Your task to perform on an android device: toggle location history Image 0: 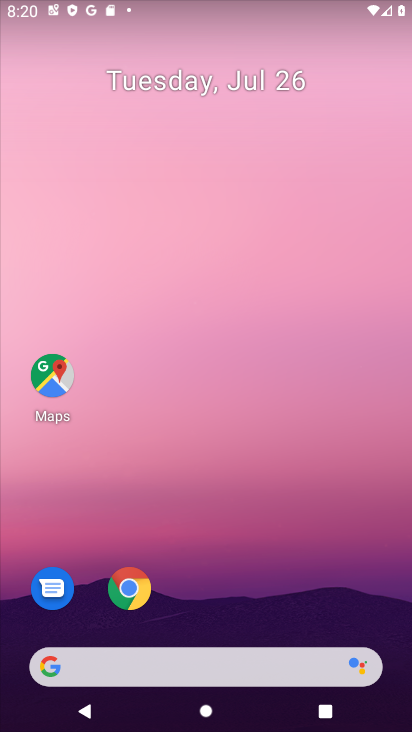
Step 0: press home button
Your task to perform on an android device: toggle location history Image 1: 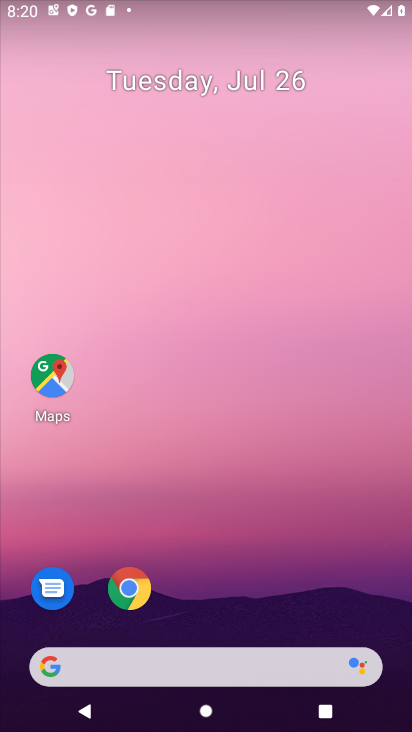
Step 1: drag from (320, 626) to (243, 155)
Your task to perform on an android device: toggle location history Image 2: 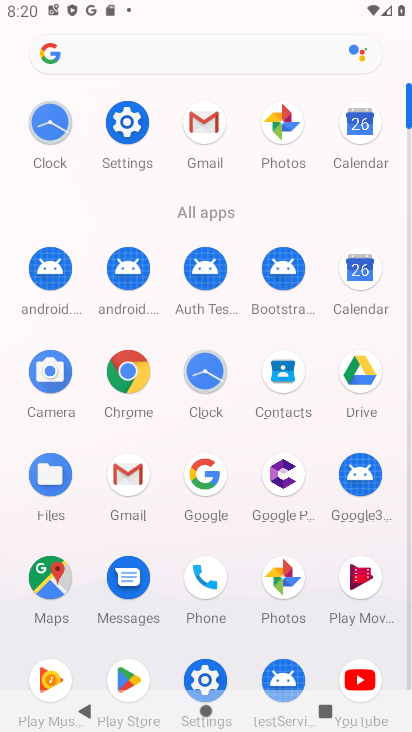
Step 2: click (127, 122)
Your task to perform on an android device: toggle location history Image 3: 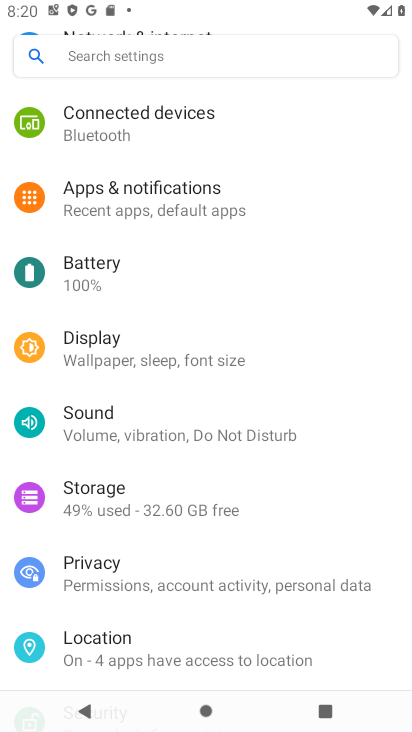
Step 3: click (142, 645)
Your task to perform on an android device: toggle location history Image 4: 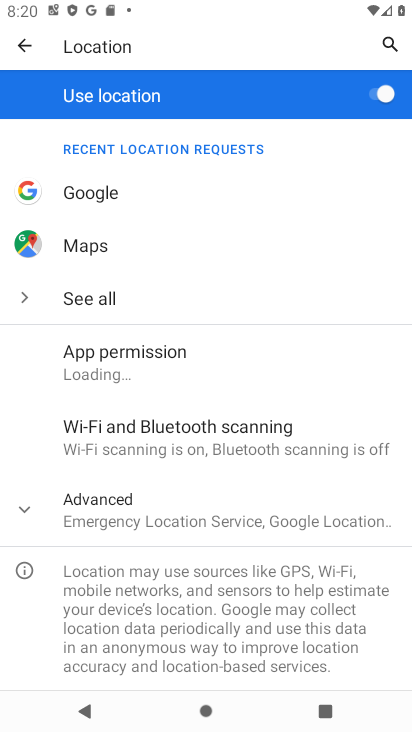
Step 4: click (23, 503)
Your task to perform on an android device: toggle location history Image 5: 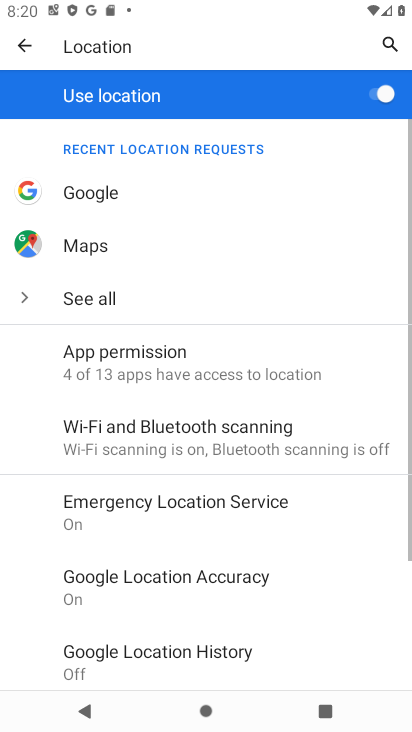
Step 5: drag from (335, 529) to (388, 166)
Your task to perform on an android device: toggle location history Image 6: 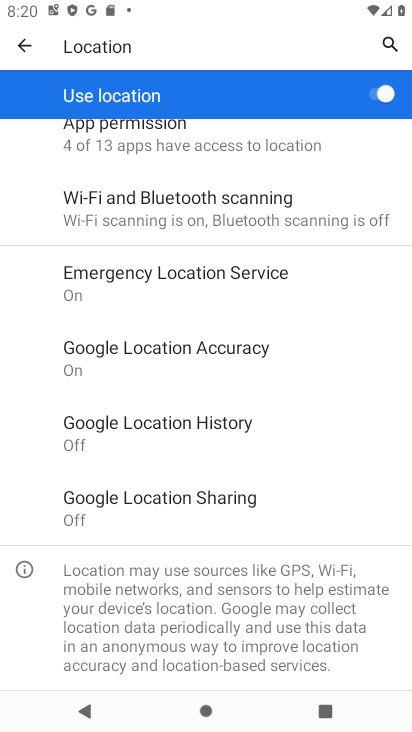
Step 6: click (170, 421)
Your task to perform on an android device: toggle location history Image 7: 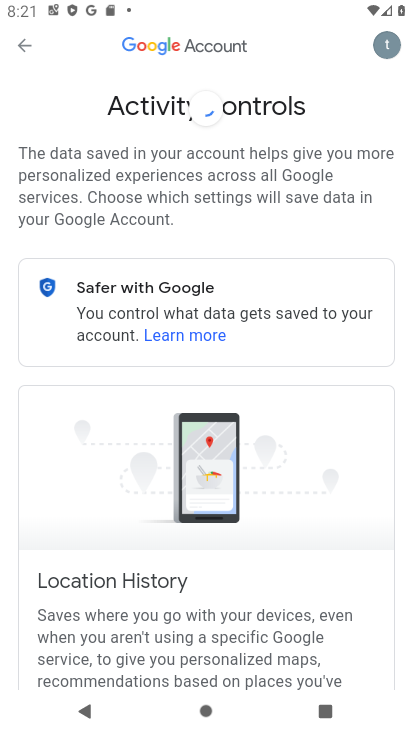
Step 7: drag from (358, 638) to (326, 170)
Your task to perform on an android device: toggle location history Image 8: 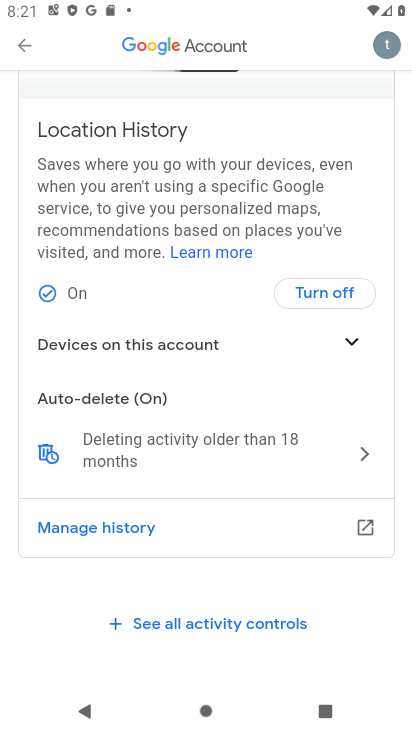
Step 8: click (339, 295)
Your task to perform on an android device: toggle location history Image 9: 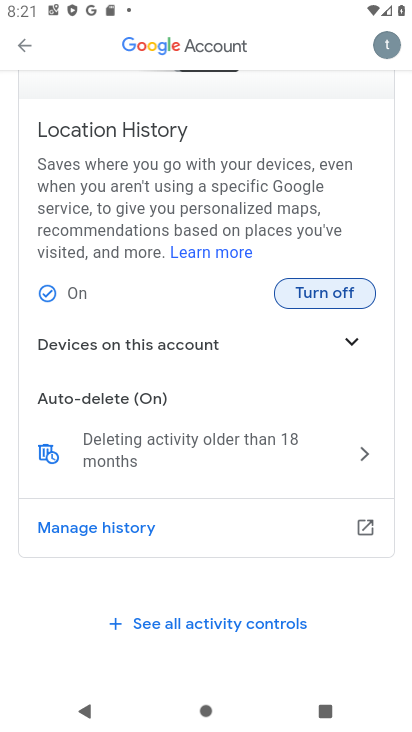
Step 9: click (317, 288)
Your task to perform on an android device: toggle location history Image 10: 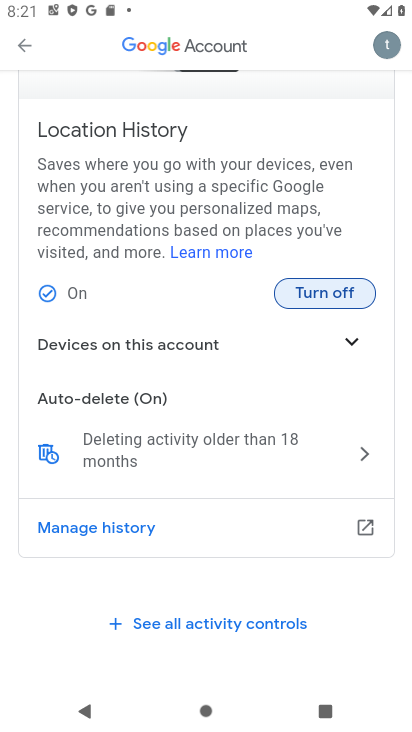
Step 10: click (341, 293)
Your task to perform on an android device: toggle location history Image 11: 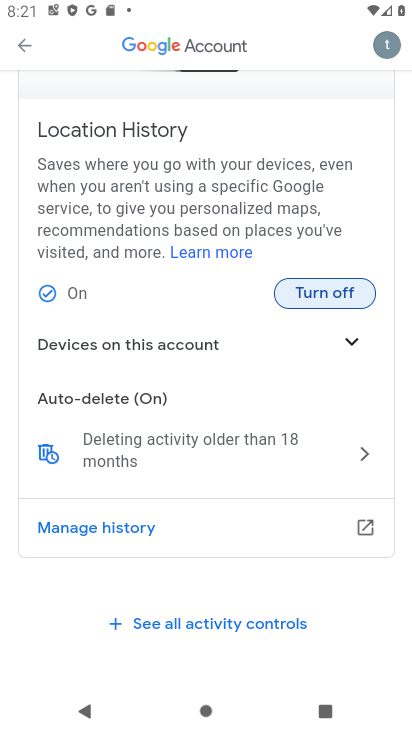
Step 11: click (305, 296)
Your task to perform on an android device: toggle location history Image 12: 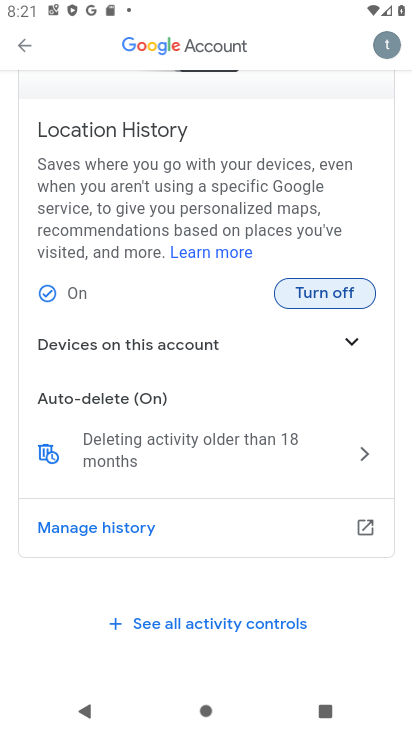
Step 12: click (322, 295)
Your task to perform on an android device: toggle location history Image 13: 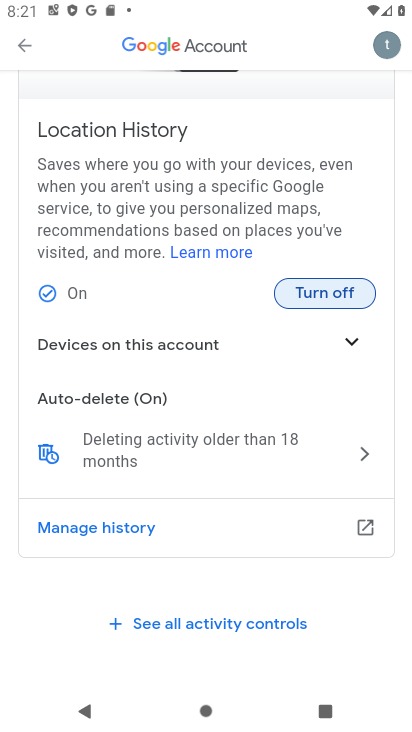
Step 13: click (344, 307)
Your task to perform on an android device: toggle location history Image 14: 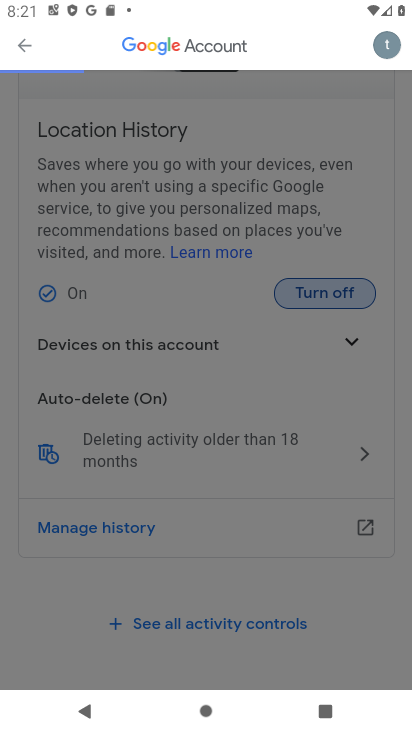
Step 14: click (50, 296)
Your task to perform on an android device: toggle location history Image 15: 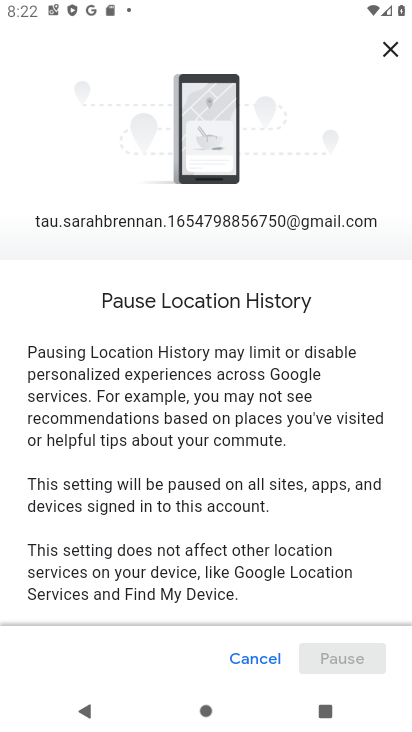
Step 15: click (338, 656)
Your task to perform on an android device: toggle location history Image 16: 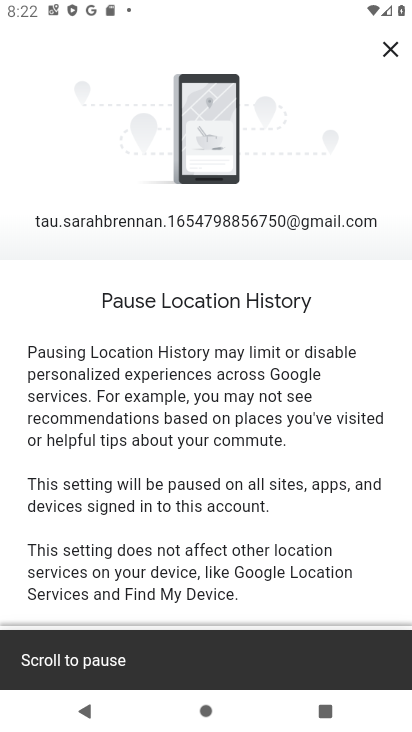
Step 16: drag from (375, 564) to (398, 212)
Your task to perform on an android device: toggle location history Image 17: 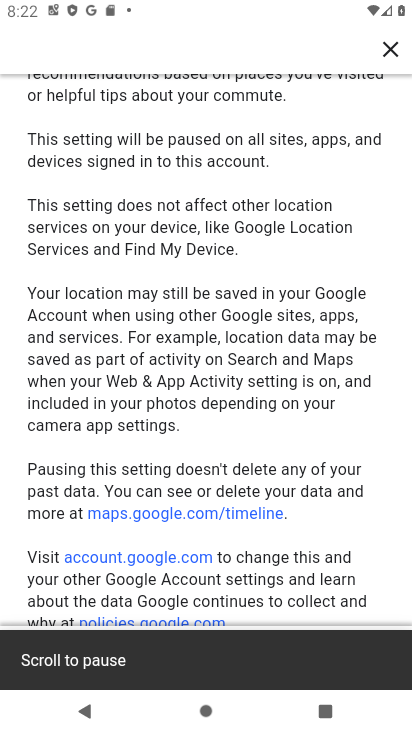
Step 17: drag from (392, 576) to (393, 218)
Your task to perform on an android device: toggle location history Image 18: 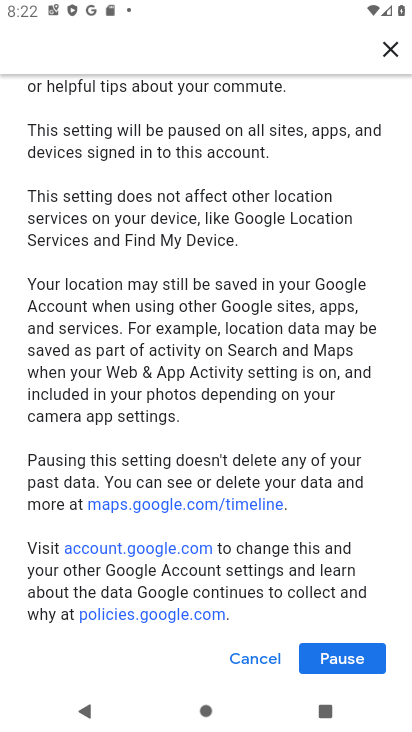
Step 18: click (343, 664)
Your task to perform on an android device: toggle location history Image 19: 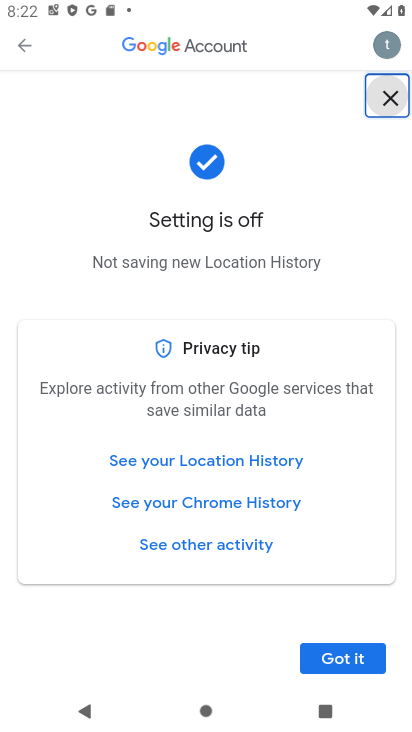
Step 19: click (349, 661)
Your task to perform on an android device: toggle location history Image 20: 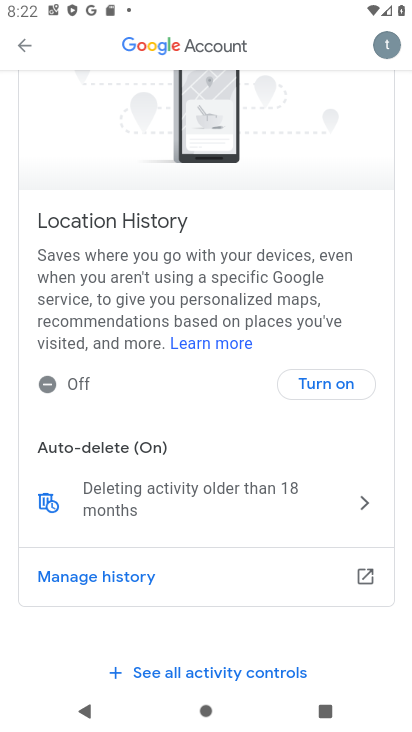
Step 20: task complete